Your task to perform on an android device: Add razer blade to the cart on walmart, then select checkout. Image 0: 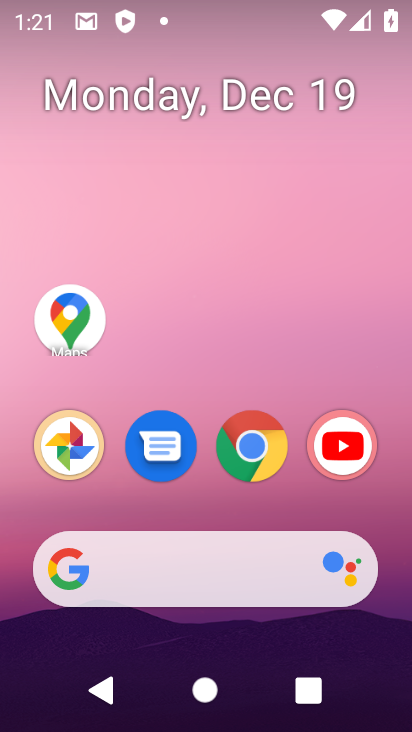
Step 0: click (269, 467)
Your task to perform on an android device: Add razer blade to the cart on walmart, then select checkout. Image 1: 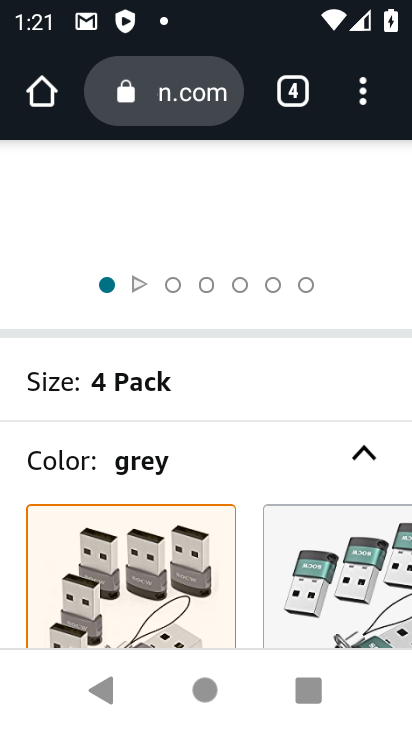
Step 1: click (146, 102)
Your task to perform on an android device: Add razer blade to the cart on walmart, then select checkout. Image 2: 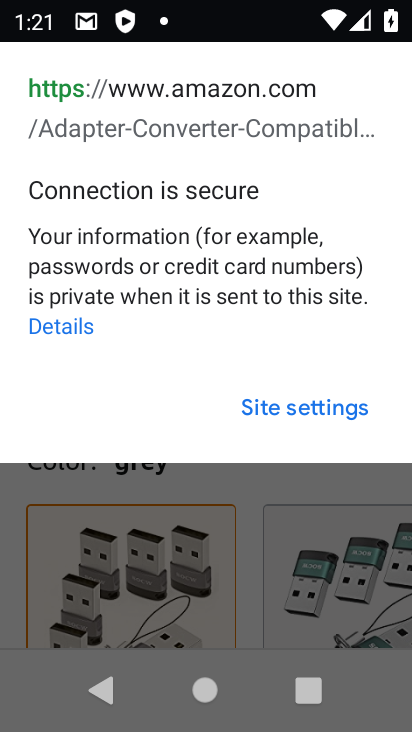
Step 2: click (168, 636)
Your task to perform on an android device: Add razer blade to the cart on walmart, then select checkout. Image 3: 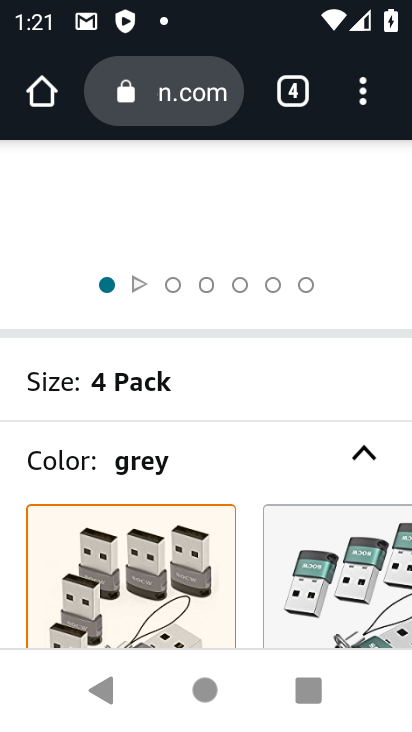
Step 3: click (218, 86)
Your task to perform on an android device: Add razer blade to the cart on walmart, then select checkout. Image 4: 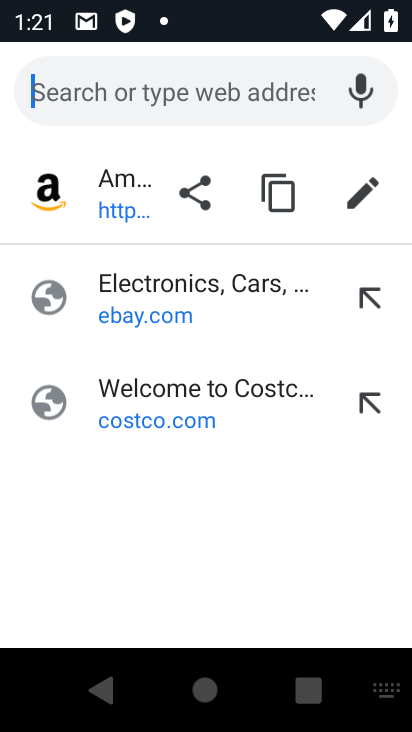
Step 4: type "walmart"
Your task to perform on an android device: Add razer blade to the cart on walmart, then select checkout. Image 5: 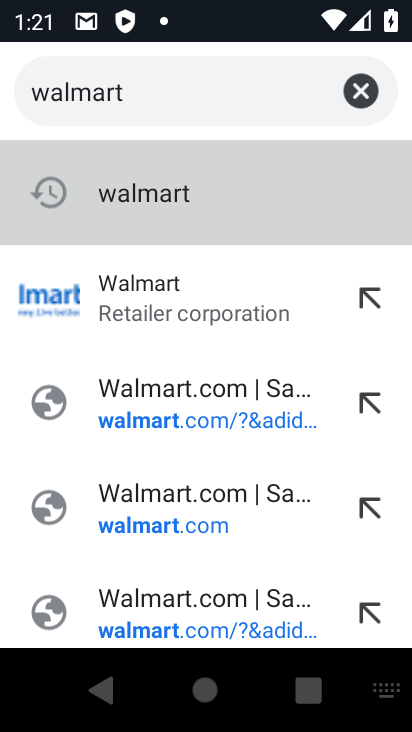
Step 5: click (153, 407)
Your task to perform on an android device: Add razer blade to the cart on walmart, then select checkout. Image 6: 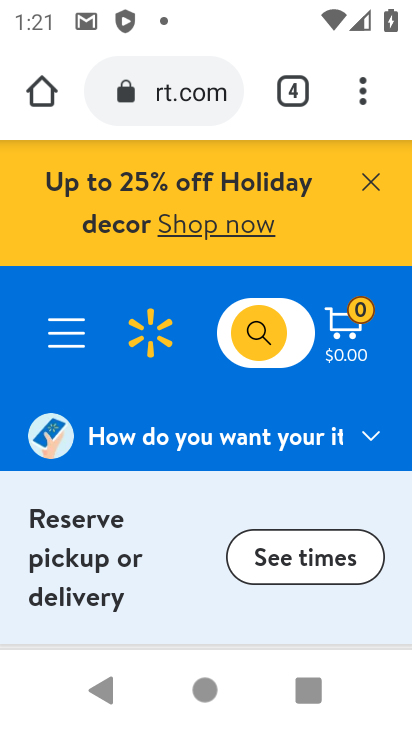
Step 6: click (222, 339)
Your task to perform on an android device: Add razer blade to the cart on walmart, then select checkout. Image 7: 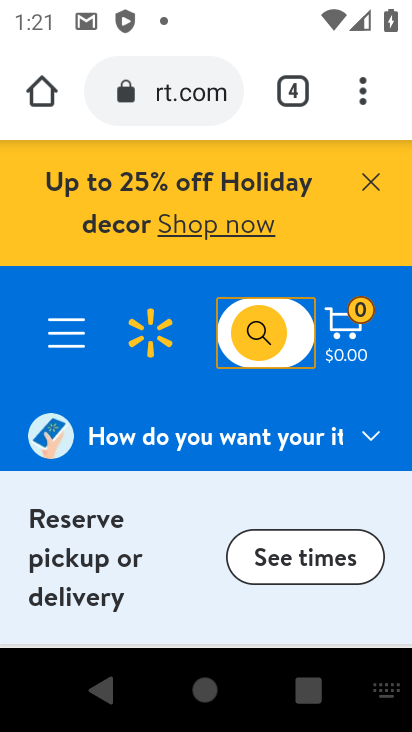
Step 7: click (230, 339)
Your task to perform on an android device: Add razer blade to the cart on walmart, then select checkout. Image 8: 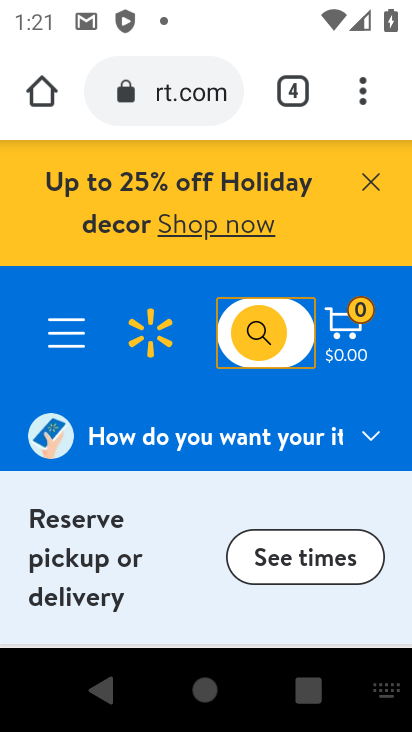
Step 8: click (272, 337)
Your task to perform on an android device: Add razer blade to the cart on walmart, then select checkout. Image 9: 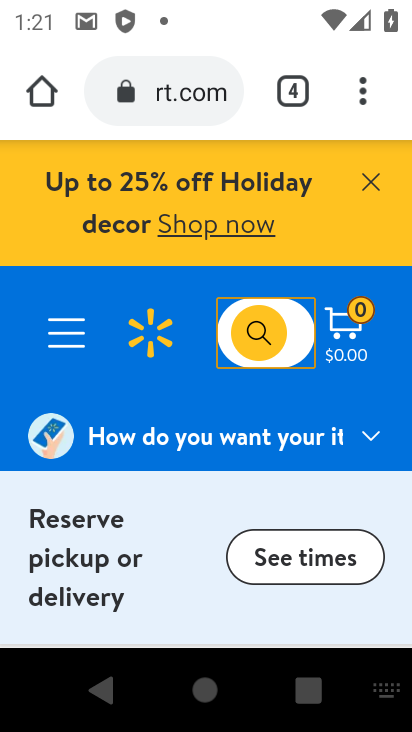
Step 9: click (272, 337)
Your task to perform on an android device: Add razer blade to the cart on walmart, then select checkout. Image 10: 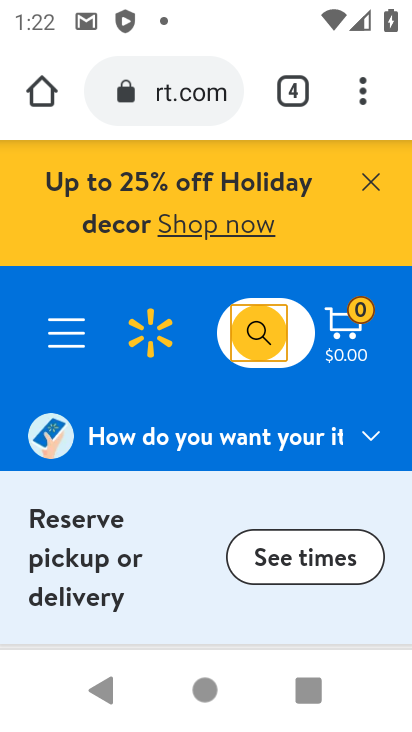
Step 10: task complete